Your task to perform on an android device: check android version Image 0: 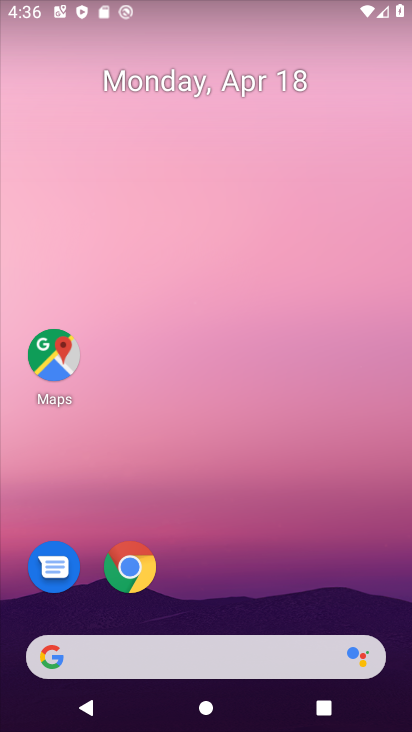
Step 0: click (133, 564)
Your task to perform on an android device: check android version Image 1: 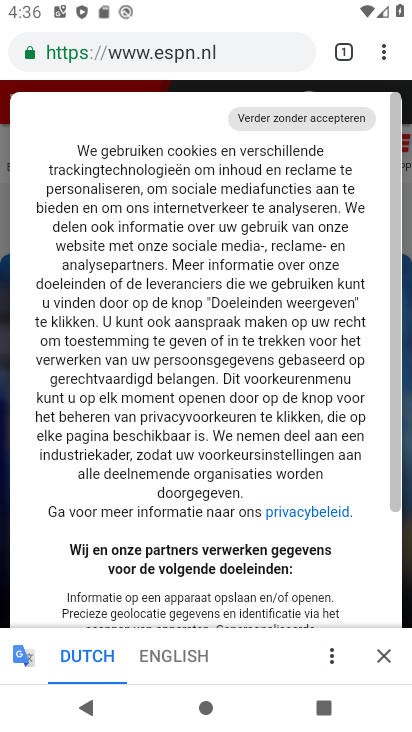
Step 1: click (382, 57)
Your task to perform on an android device: check android version Image 2: 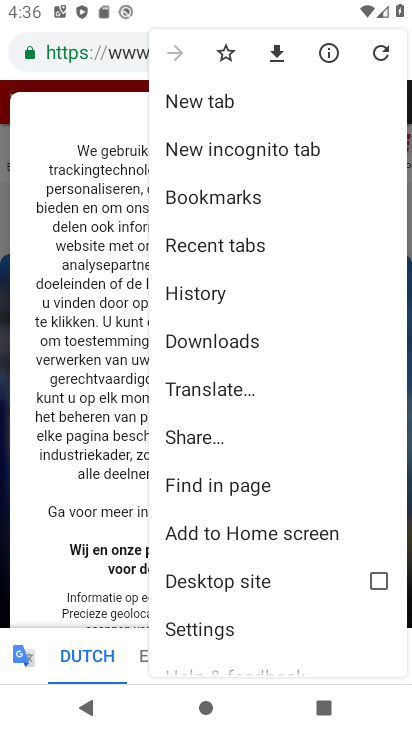
Step 2: click (184, 639)
Your task to perform on an android device: check android version Image 3: 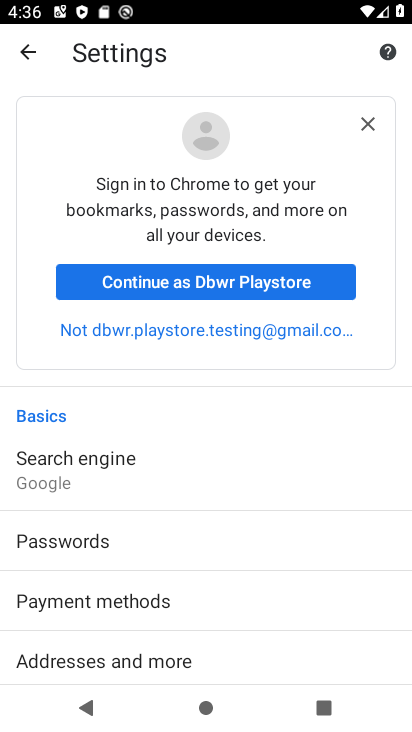
Step 3: drag from (184, 639) to (167, 123)
Your task to perform on an android device: check android version Image 4: 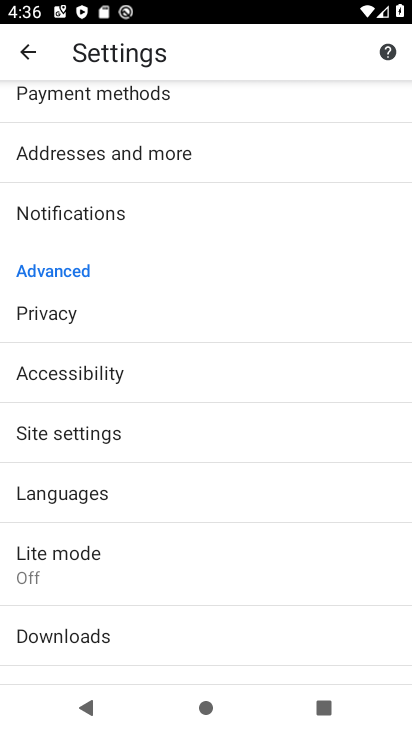
Step 4: drag from (169, 584) to (156, 166)
Your task to perform on an android device: check android version Image 5: 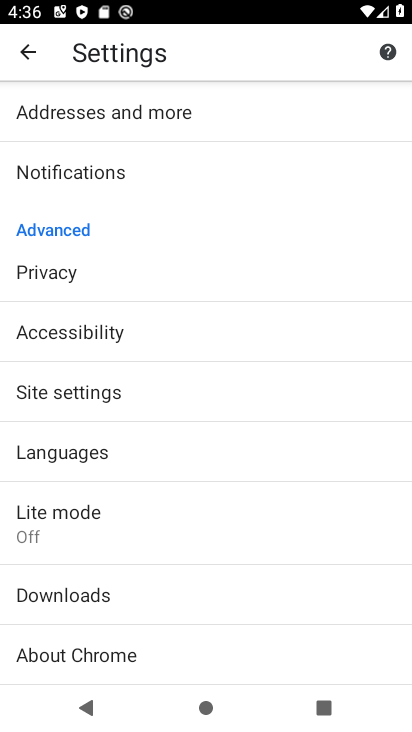
Step 5: click (89, 648)
Your task to perform on an android device: check android version Image 6: 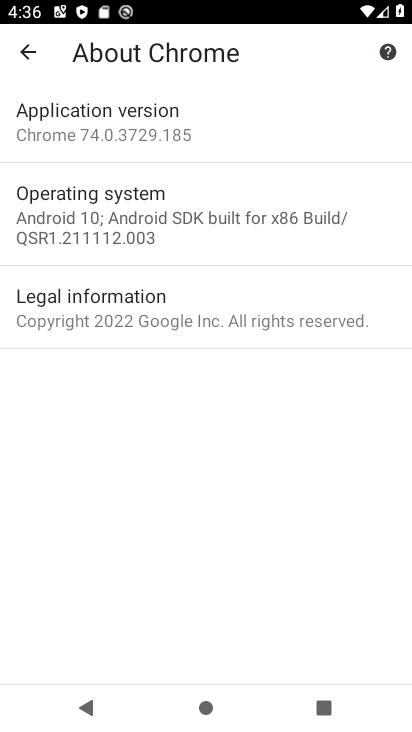
Step 6: task complete